Your task to perform on an android device: Turn on the flashlight Image 0: 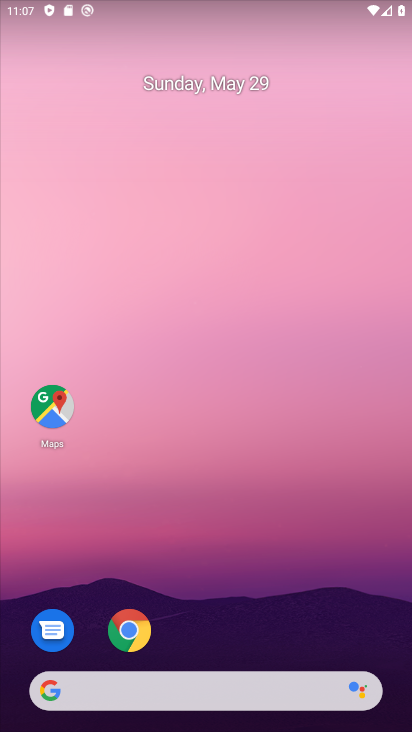
Step 0: drag from (190, 13) to (197, 730)
Your task to perform on an android device: Turn on the flashlight Image 1: 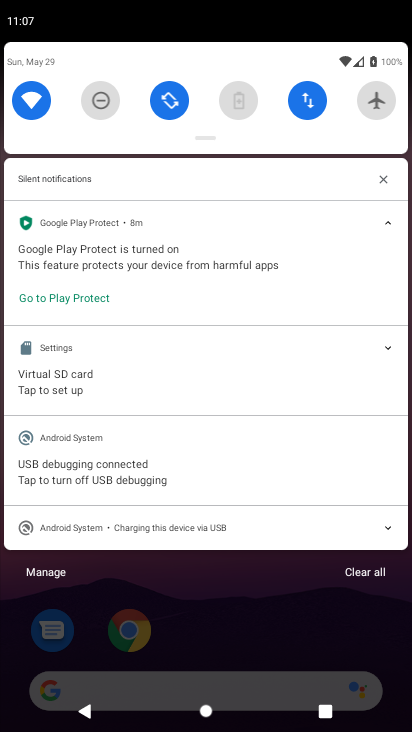
Step 1: drag from (197, 144) to (184, 576)
Your task to perform on an android device: Turn on the flashlight Image 2: 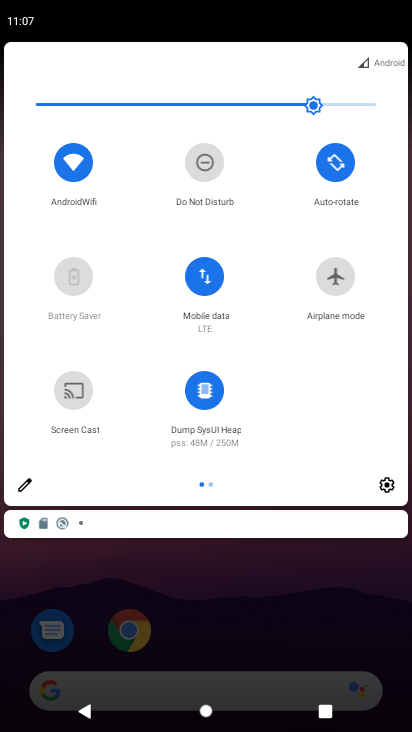
Step 2: click (24, 487)
Your task to perform on an android device: Turn on the flashlight Image 3: 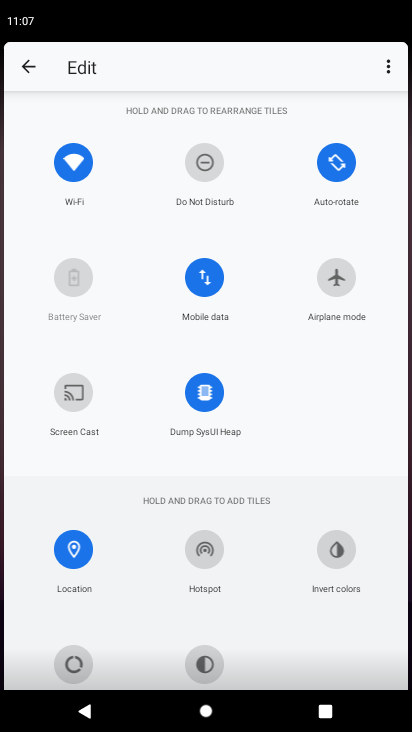
Step 3: task complete